Your task to perform on an android device: Go to Yahoo.com Image 0: 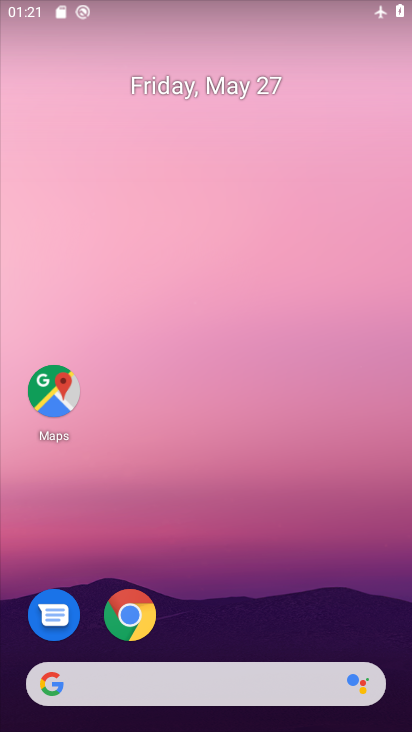
Step 0: drag from (329, 632) to (319, 132)
Your task to perform on an android device: Go to Yahoo.com Image 1: 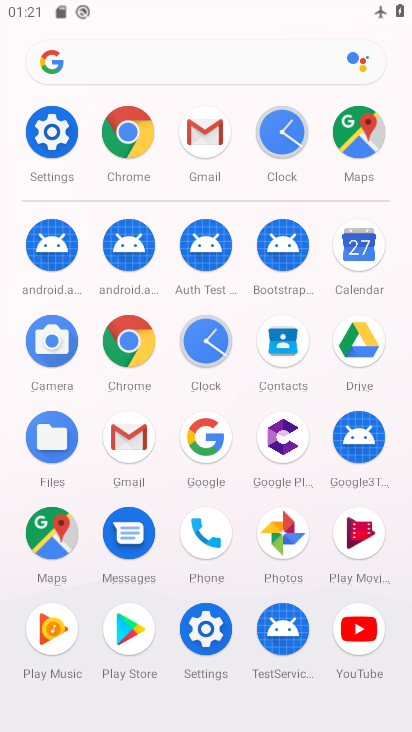
Step 1: click (124, 355)
Your task to perform on an android device: Go to Yahoo.com Image 2: 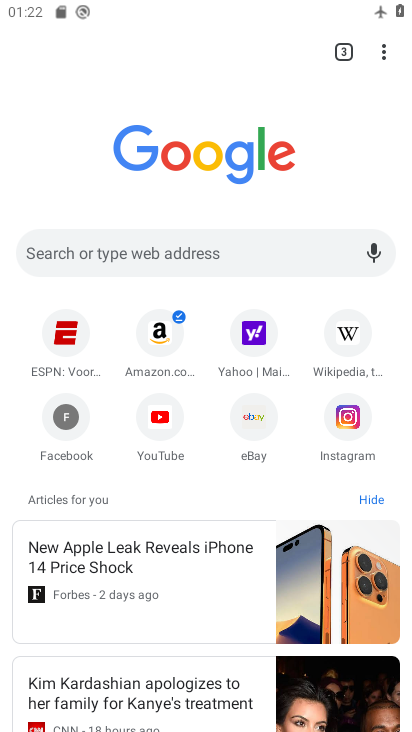
Step 2: click (259, 357)
Your task to perform on an android device: Go to Yahoo.com Image 3: 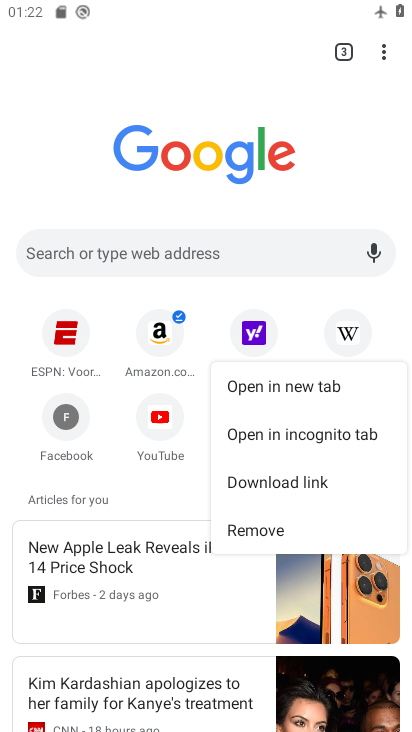
Step 3: task complete